Your task to perform on an android device: Go to internet settings Image 0: 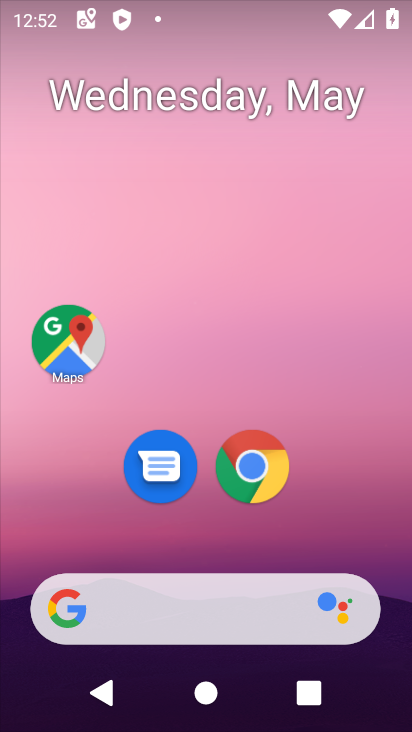
Step 0: drag from (220, 535) to (212, 98)
Your task to perform on an android device: Go to internet settings Image 1: 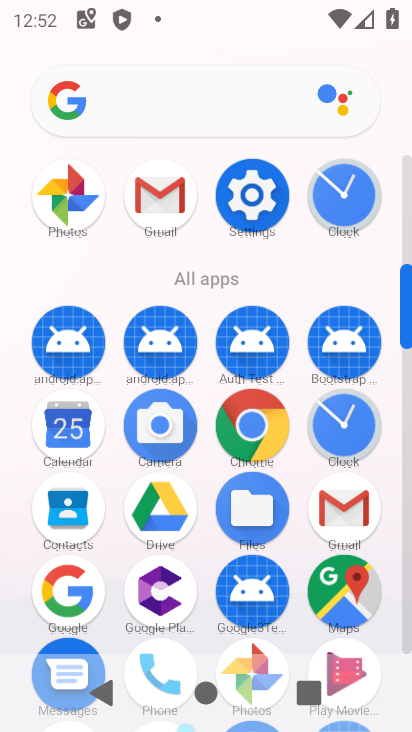
Step 1: click (246, 198)
Your task to perform on an android device: Go to internet settings Image 2: 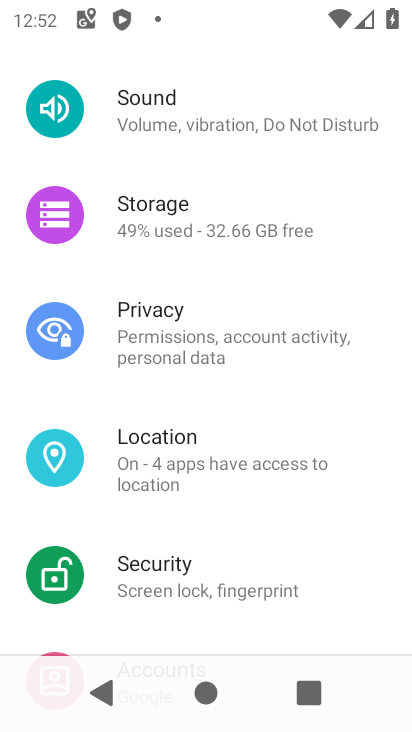
Step 2: drag from (197, 134) to (313, 562)
Your task to perform on an android device: Go to internet settings Image 3: 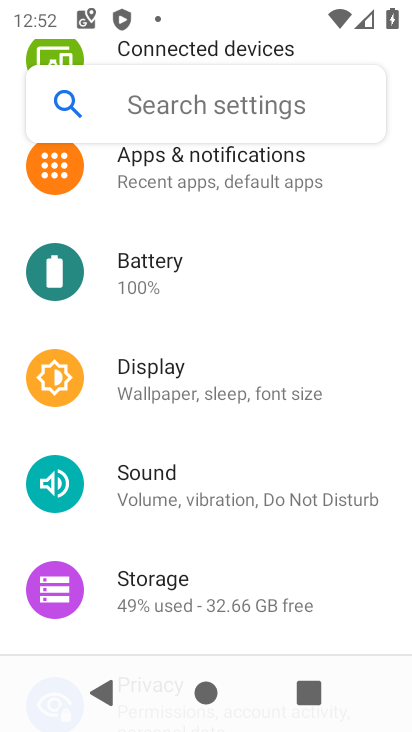
Step 3: drag from (150, 185) to (305, 586)
Your task to perform on an android device: Go to internet settings Image 4: 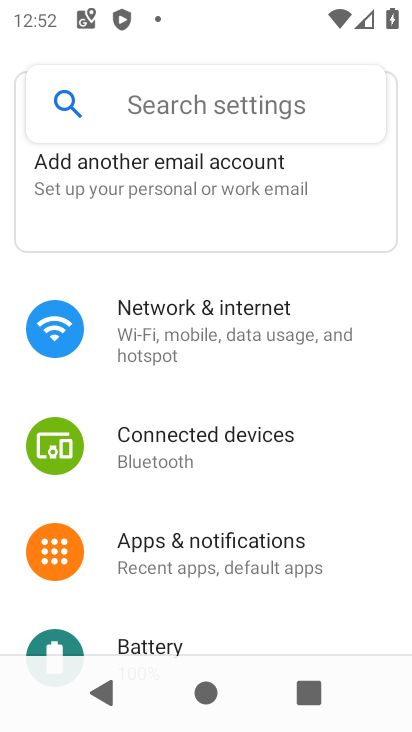
Step 4: click (220, 314)
Your task to perform on an android device: Go to internet settings Image 5: 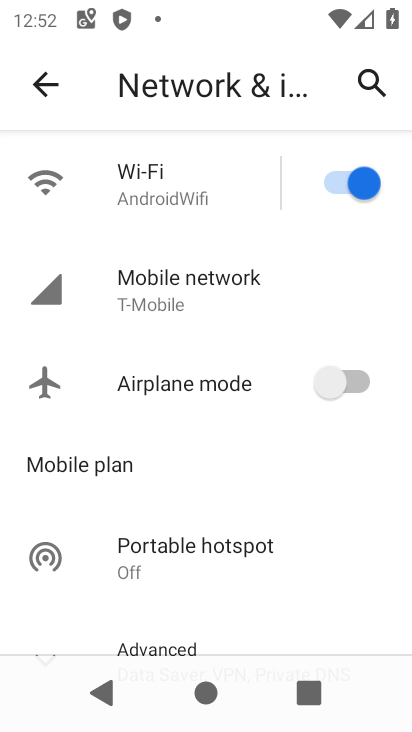
Step 5: click (189, 194)
Your task to perform on an android device: Go to internet settings Image 6: 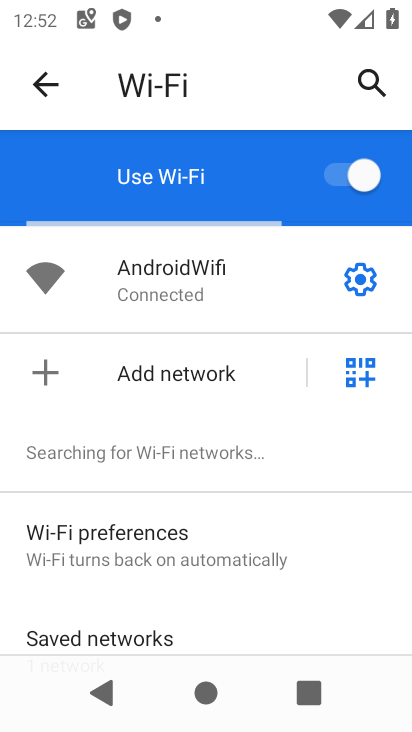
Step 6: click (181, 290)
Your task to perform on an android device: Go to internet settings Image 7: 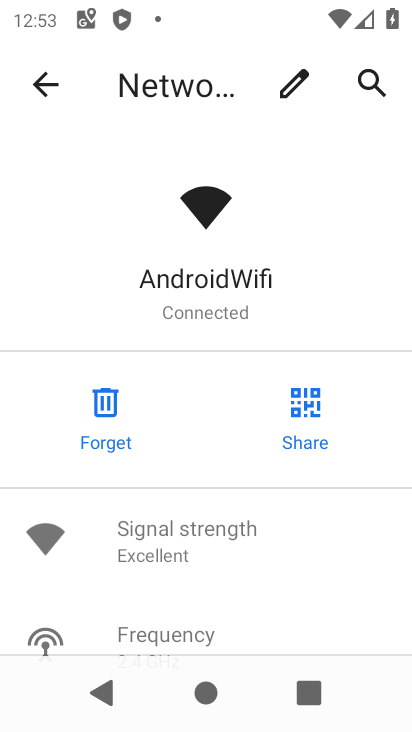
Step 7: task complete